Your task to perform on an android device: open device folders in google photos Image 0: 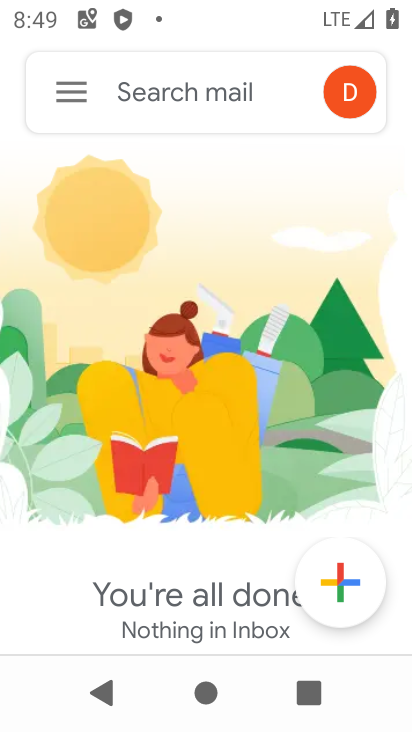
Step 0: press home button
Your task to perform on an android device: open device folders in google photos Image 1: 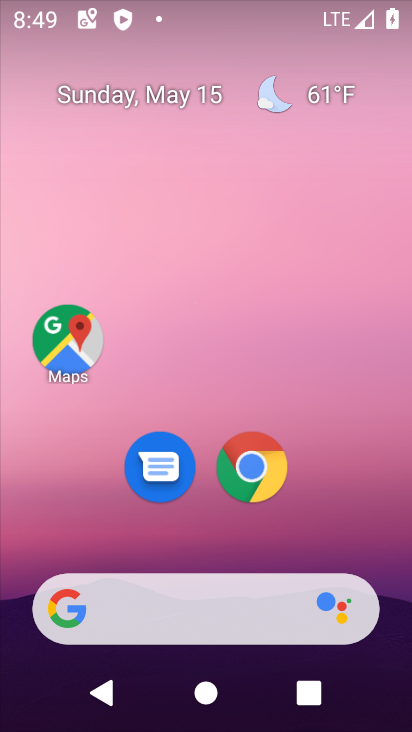
Step 1: drag from (195, 542) to (190, 211)
Your task to perform on an android device: open device folders in google photos Image 2: 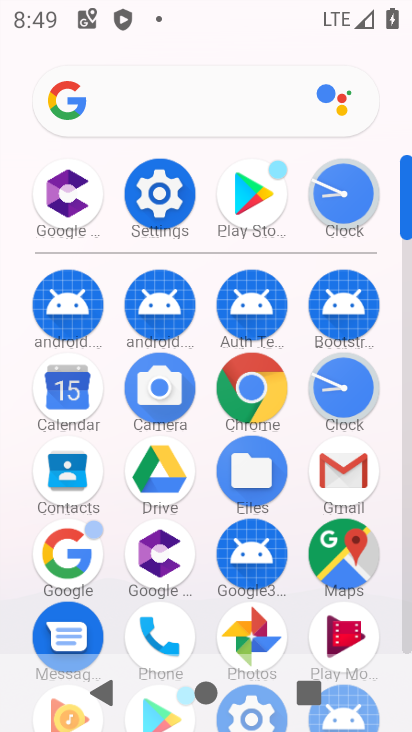
Step 2: click (240, 626)
Your task to perform on an android device: open device folders in google photos Image 3: 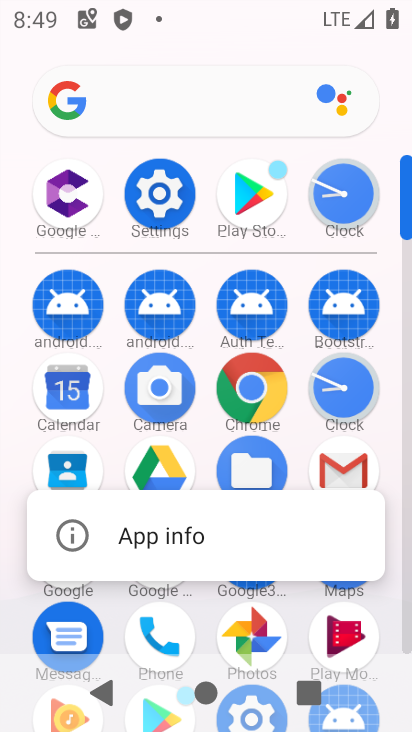
Step 3: click (240, 626)
Your task to perform on an android device: open device folders in google photos Image 4: 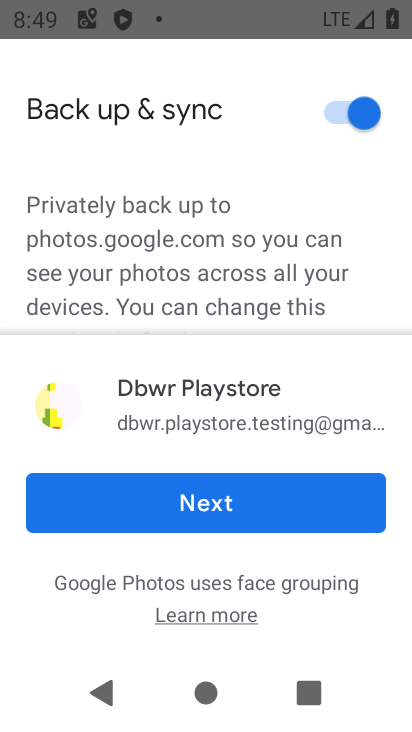
Step 4: click (226, 510)
Your task to perform on an android device: open device folders in google photos Image 5: 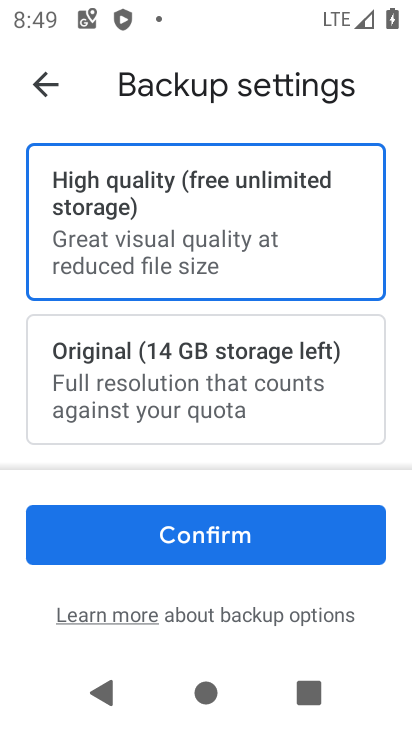
Step 5: click (202, 531)
Your task to perform on an android device: open device folders in google photos Image 6: 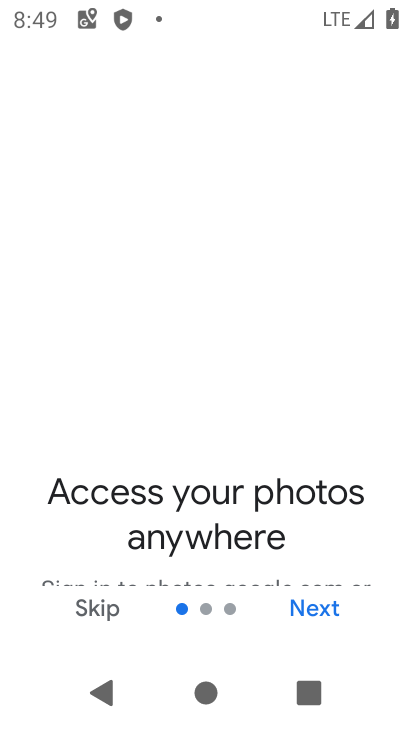
Step 6: click (300, 607)
Your task to perform on an android device: open device folders in google photos Image 7: 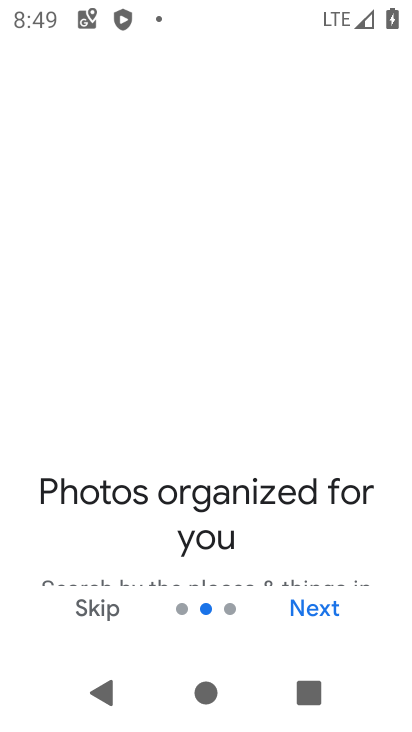
Step 7: click (300, 607)
Your task to perform on an android device: open device folders in google photos Image 8: 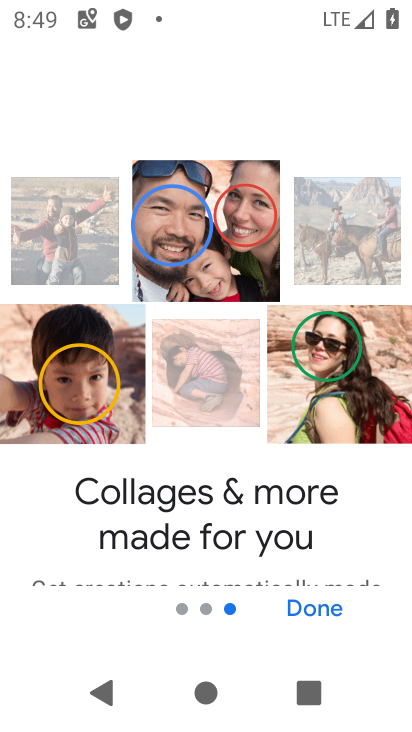
Step 8: click (300, 607)
Your task to perform on an android device: open device folders in google photos Image 9: 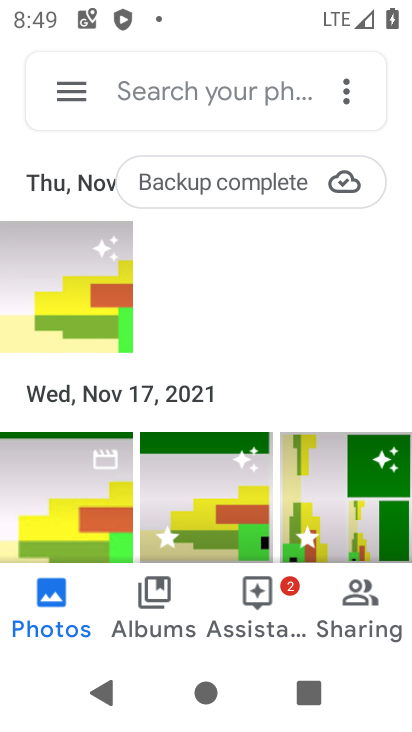
Step 9: click (77, 95)
Your task to perform on an android device: open device folders in google photos Image 10: 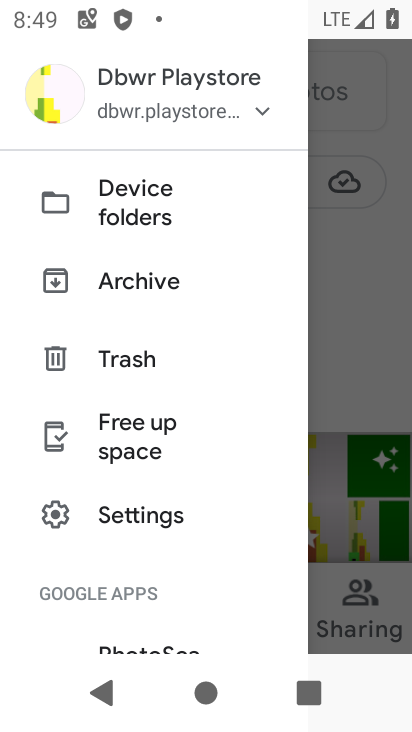
Step 10: click (105, 187)
Your task to perform on an android device: open device folders in google photos Image 11: 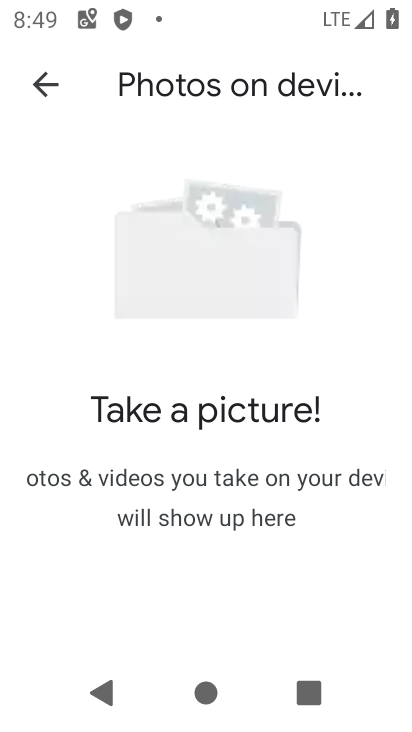
Step 11: task complete